Your task to perform on an android device: change your default location settings in chrome Image 0: 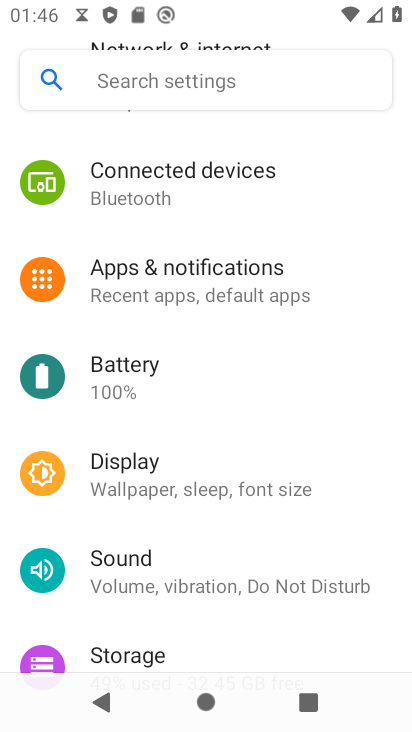
Step 0: press home button
Your task to perform on an android device: change your default location settings in chrome Image 1: 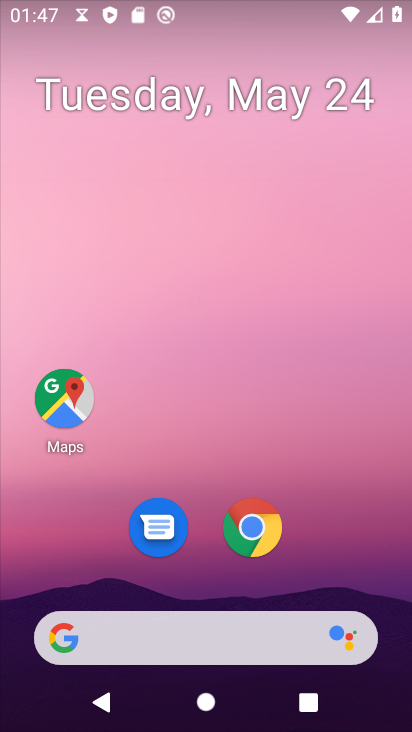
Step 1: click (231, 540)
Your task to perform on an android device: change your default location settings in chrome Image 2: 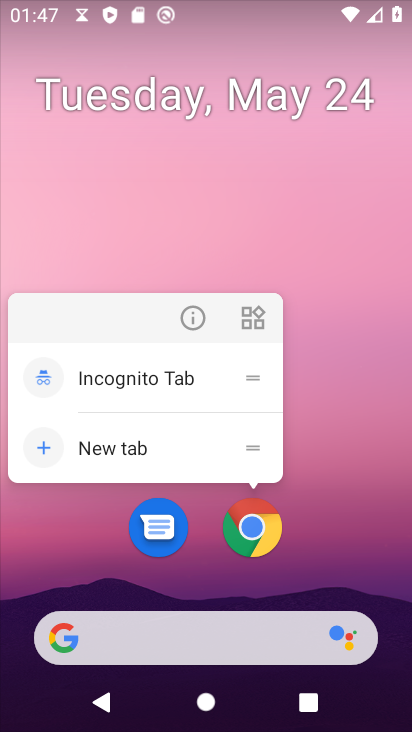
Step 2: click (252, 534)
Your task to perform on an android device: change your default location settings in chrome Image 3: 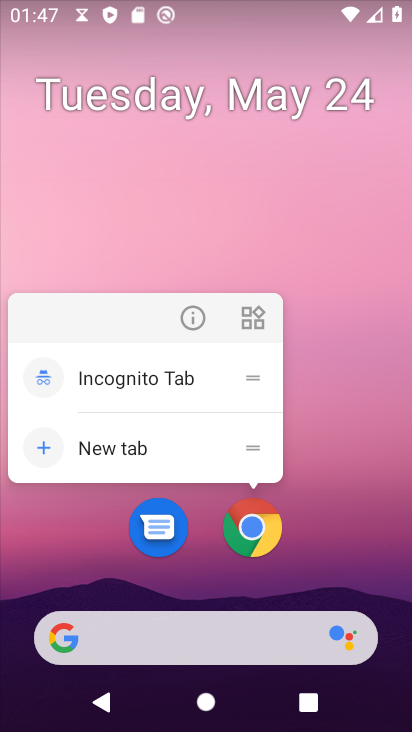
Step 3: click (256, 528)
Your task to perform on an android device: change your default location settings in chrome Image 4: 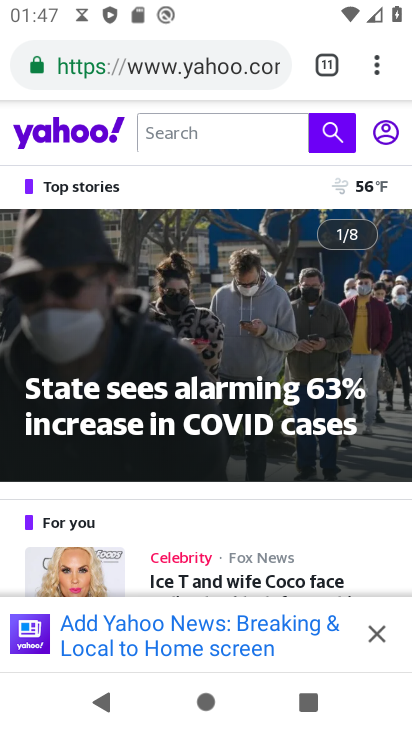
Step 4: drag from (372, 74) to (204, 579)
Your task to perform on an android device: change your default location settings in chrome Image 5: 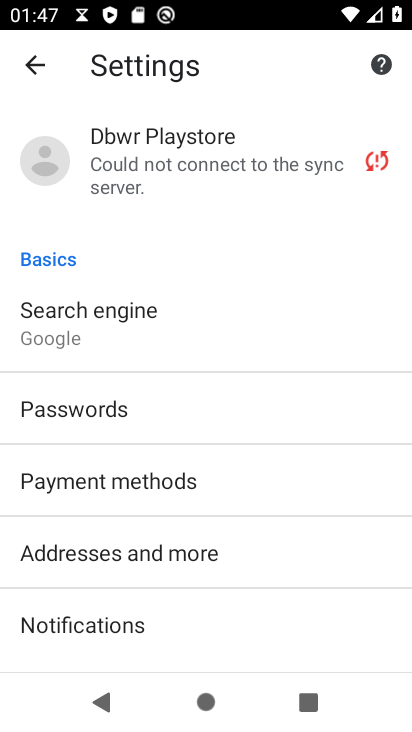
Step 5: drag from (183, 622) to (261, 255)
Your task to perform on an android device: change your default location settings in chrome Image 6: 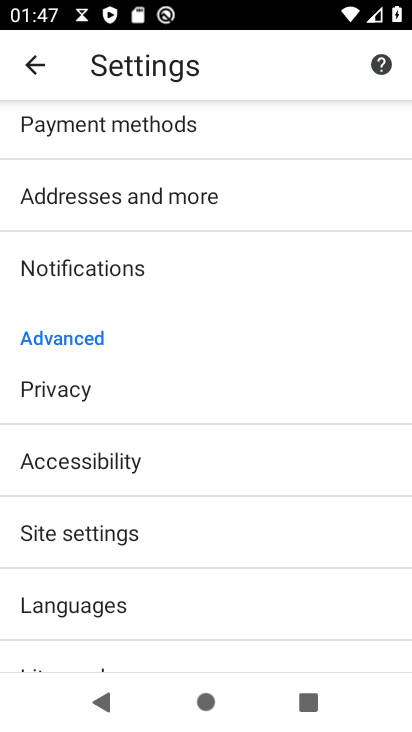
Step 6: click (100, 539)
Your task to perform on an android device: change your default location settings in chrome Image 7: 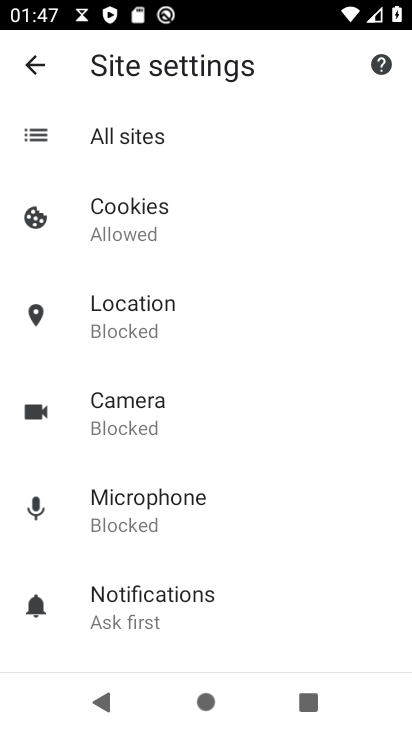
Step 7: drag from (183, 550) to (211, 237)
Your task to perform on an android device: change your default location settings in chrome Image 8: 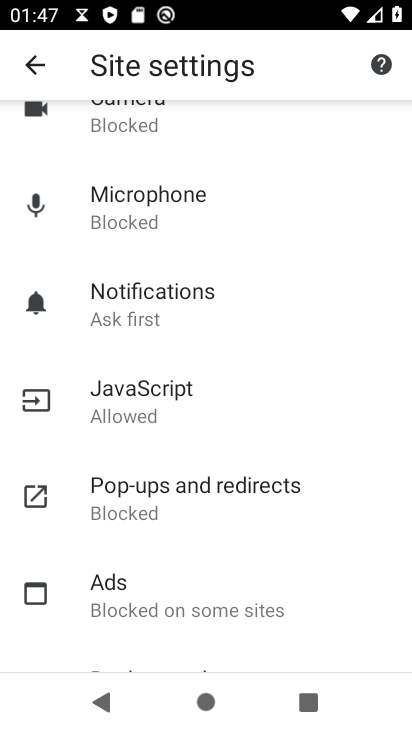
Step 8: drag from (271, 237) to (279, 625)
Your task to perform on an android device: change your default location settings in chrome Image 9: 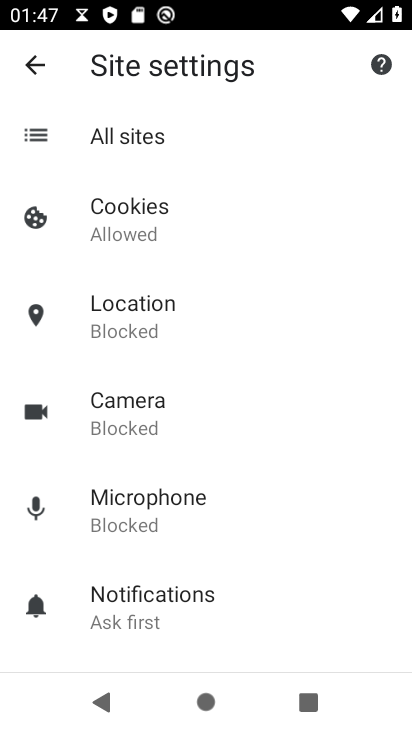
Step 9: click (151, 312)
Your task to perform on an android device: change your default location settings in chrome Image 10: 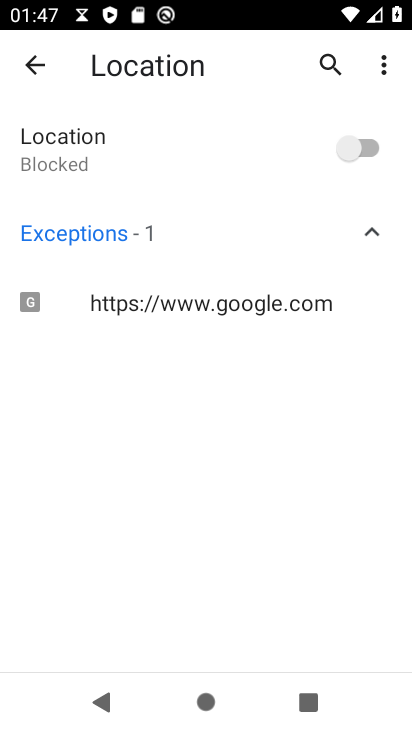
Step 10: click (370, 150)
Your task to perform on an android device: change your default location settings in chrome Image 11: 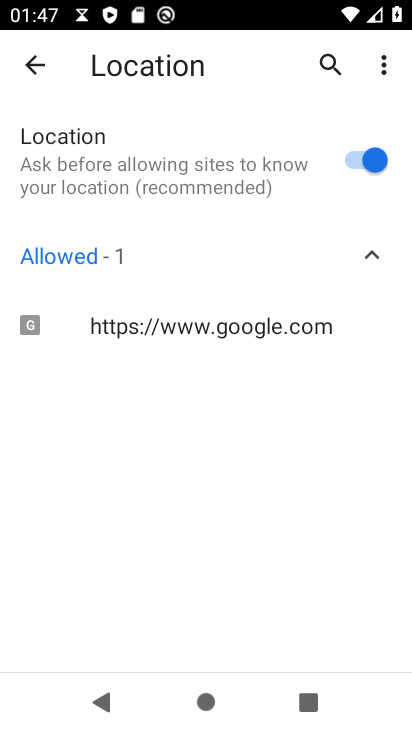
Step 11: task complete